Your task to perform on an android device: Turn off notifications for the Google Maps app Image 0: 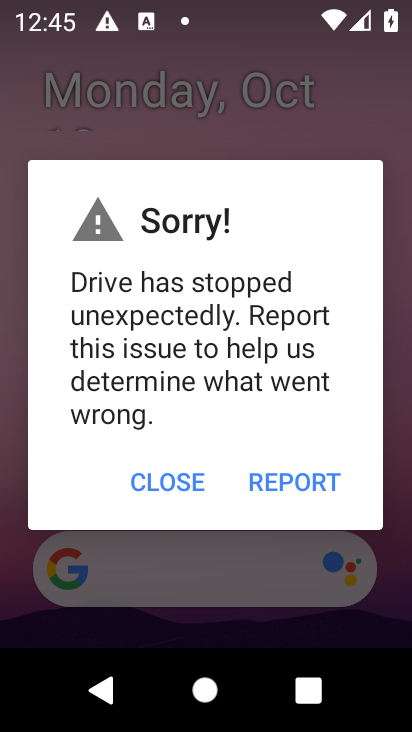
Step 0: click (177, 477)
Your task to perform on an android device: Turn off notifications for the Google Maps app Image 1: 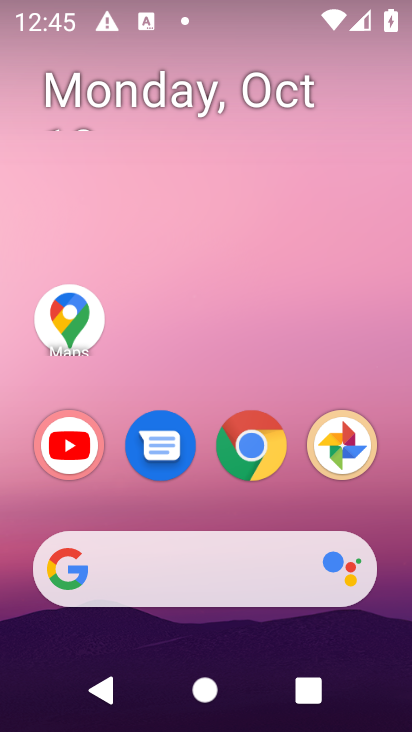
Step 1: click (59, 315)
Your task to perform on an android device: Turn off notifications for the Google Maps app Image 2: 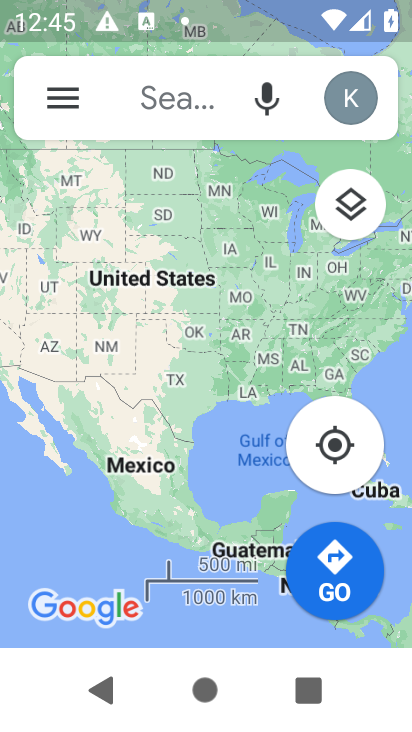
Step 2: click (51, 95)
Your task to perform on an android device: Turn off notifications for the Google Maps app Image 3: 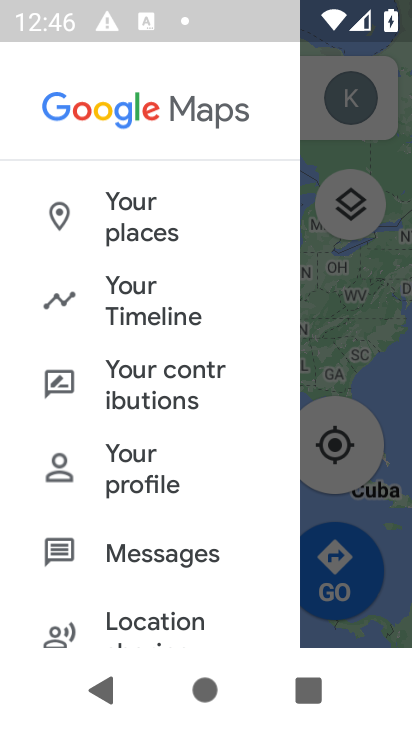
Step 3: drag from (185, 498) to (187, 244)
Your task to perform on an android device: Turn off notifications for the Google Maps app Image 4: 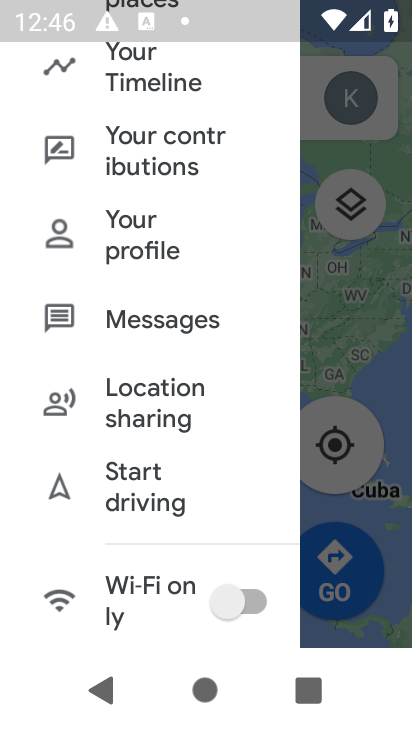
Step 4: drag from (178, 500) to (127, 164)
Your task to perform on an android device: Turn off notifications for the Google Maps app Image 5: 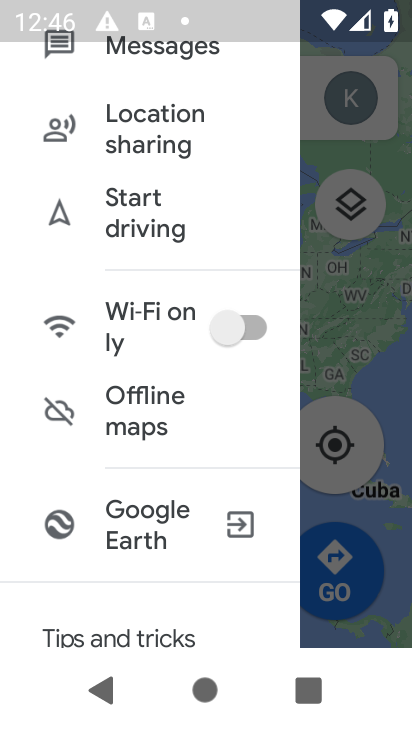
Step 5: drag from (182, 528) to (195, 117)
Your task to perform on an android device: Turn off notifications for the Google Maps app Image 6: 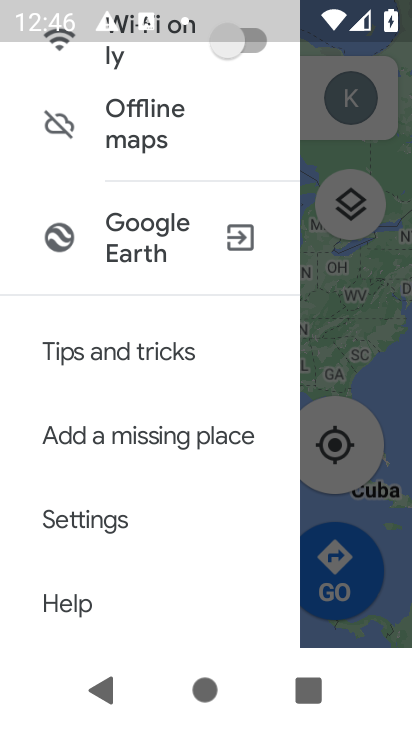
Step 6: click (87, 514)
Your task to perform on an android device: Turn off notifications for the Google Maps app Image 7: 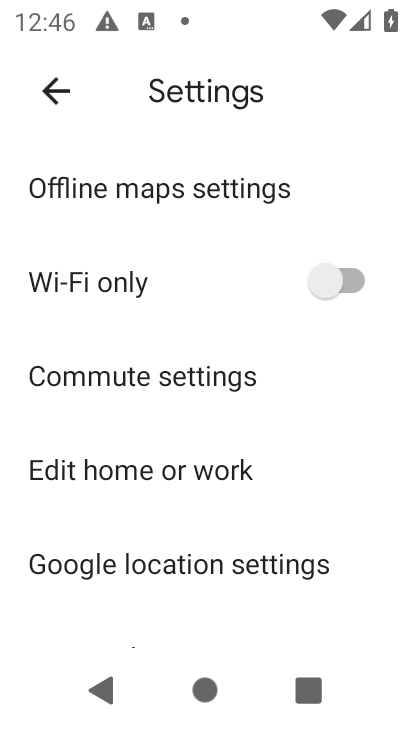
Step 7: drag from (128, 572) to (134, 248)
Your task to perform on an android device: Turn off notifications for the Google Maps app Image 8: 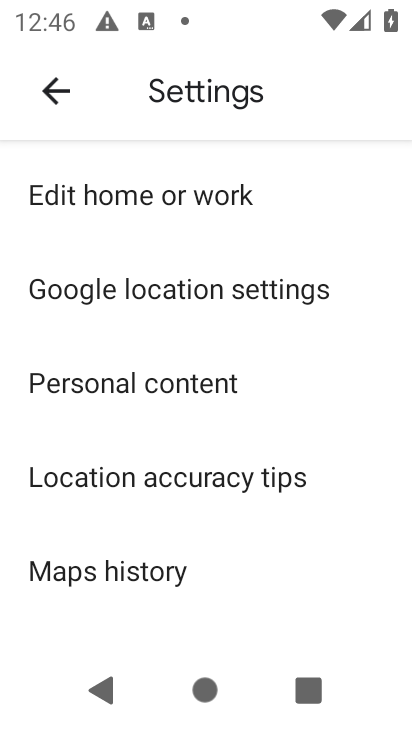
Step 8: drag from (193, 535) to (172, 71)
Your task to perform on an android device: Turn off notifications for the Google Maps app Image 9: 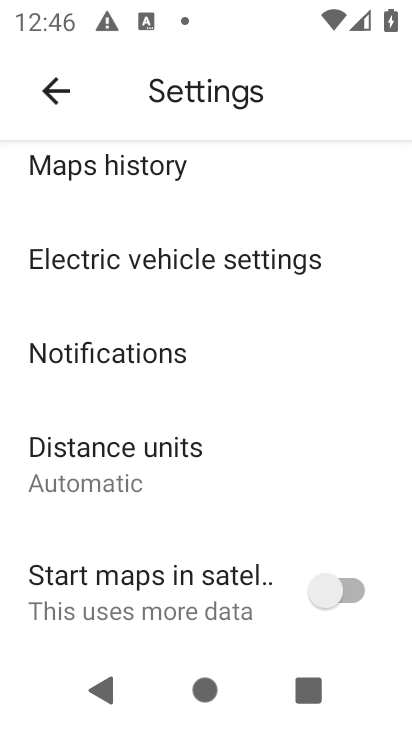
Step 9: click (137, 366)
Your task to perform on an android device: Turn off notifications for the Google Maps app Image 10: 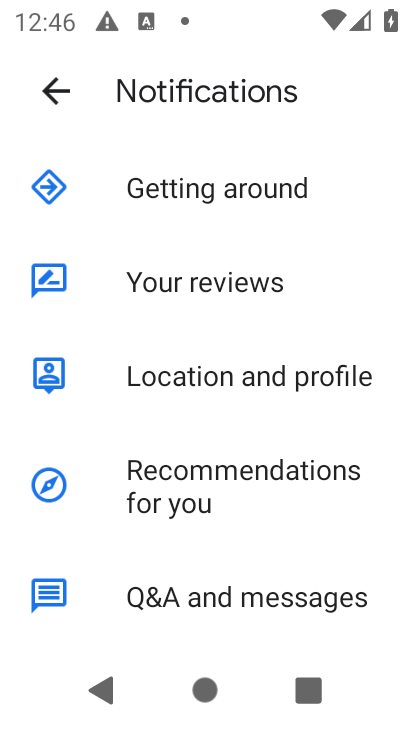
Step 10: drag from (209, 488) to (242, 19)
Your task to perform on an android device: Turn off notifications for the Google Maps app Image 11: 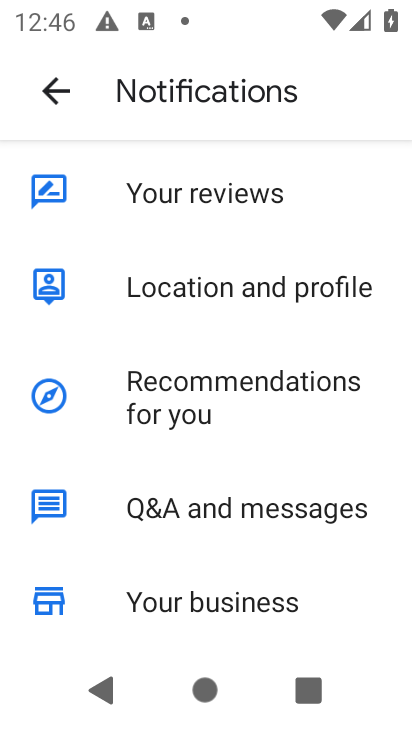
Step 11: drag from (195, 587) to (183, 334)
Your task to perform on an android device: Turn off notifications for the Google Maps app Image 12: 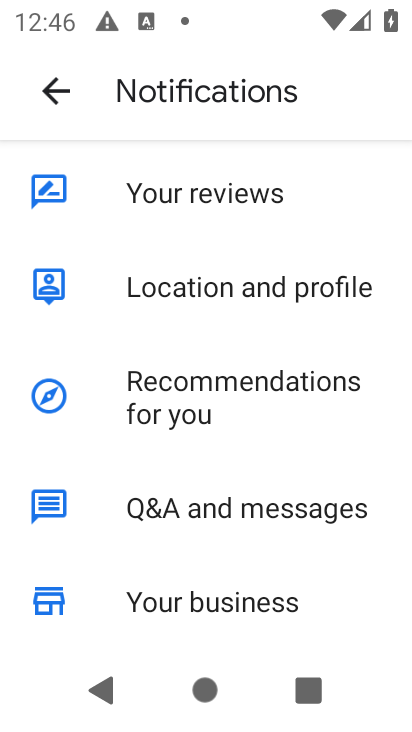
Step 12: drag from (248, 178) to (216, 513)
Your task to perform on an android device: Turn off notifications for the Google Maps app Image 13: 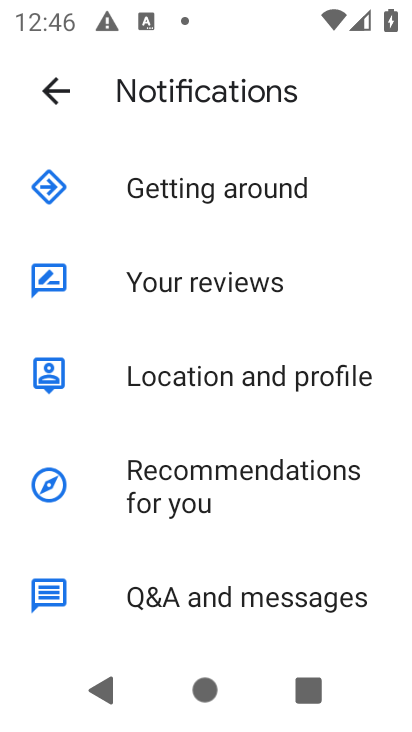
Step 13: click (207, 197)
Your task to perform on an android device: Turn off notifications for the Google Maps app Image 14: 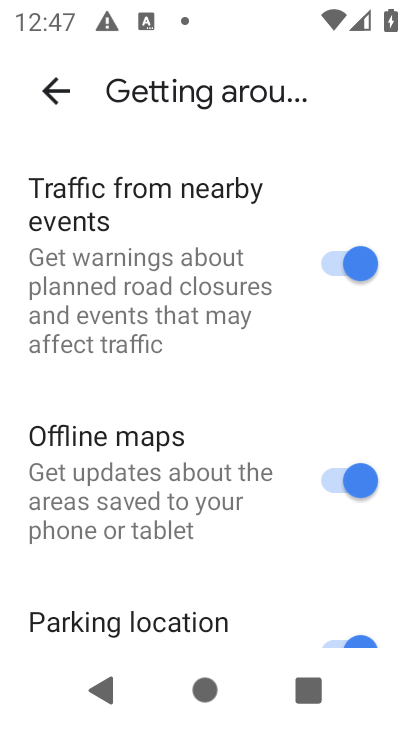
Step 14: drag from (235, 383) to (210, 63)
Your task to perform on an android device: Turn off notifications for the Google Maps app Image 15: 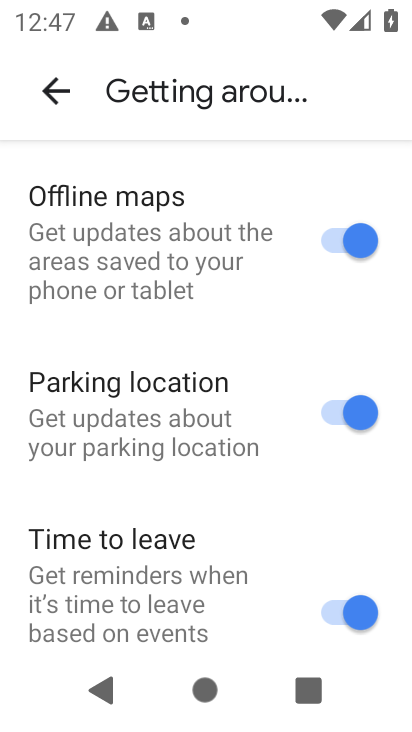
Step 15: drag from (191, 557) to (179, 96)
Your task to perform on an android device: Turn off notifications for the Google Maps app Image 16: 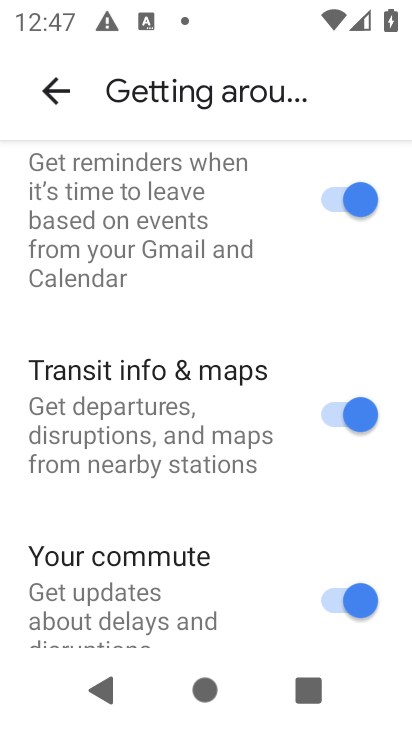
Step 16: drag from (213, 585) to (191, 113)
Your task to perform on an android device: Turn off notifications for the Google Maps app Image 17: 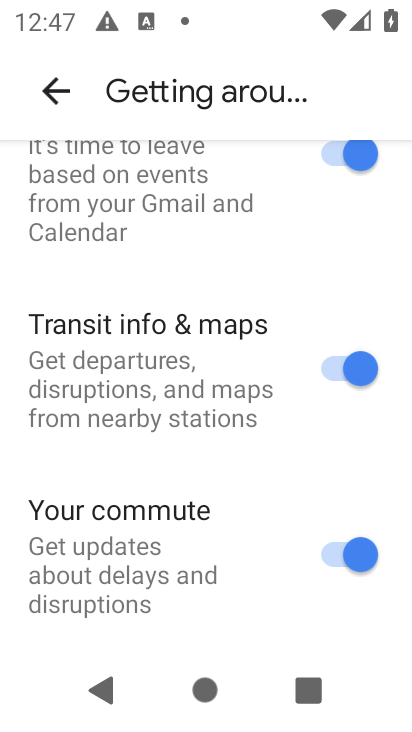
Step 17: click (347, 167)
Your task to perform on an android device: Turn off notifications for the Google Maps app Image 18: 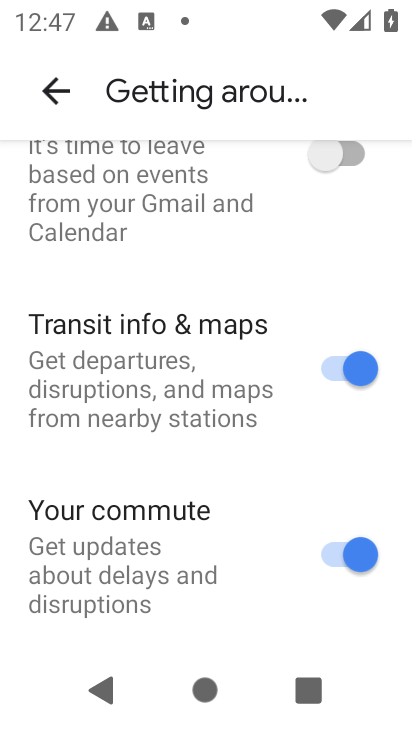
Step 18: click (343, 374)
Your task to perform on an android device: Turn off notifications for the Google Maps app Image 19: 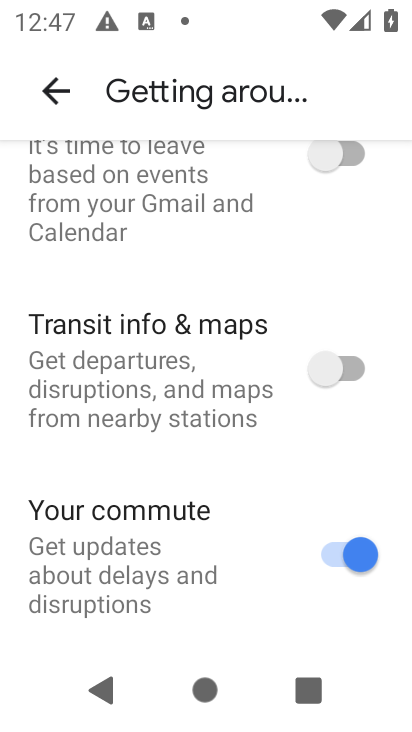
Step 19: click (337, 569)
Your task to perform on an android device: Turn off notifications for the Google Maps app Image 20: 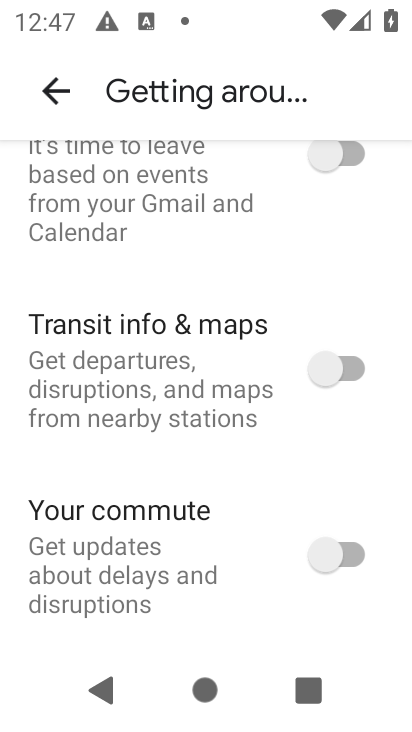
Step 20: drag from (203, 178) to (174, 581)
Your task to perform on an android device: Turn off notifications for the Google Maps app Image 21: 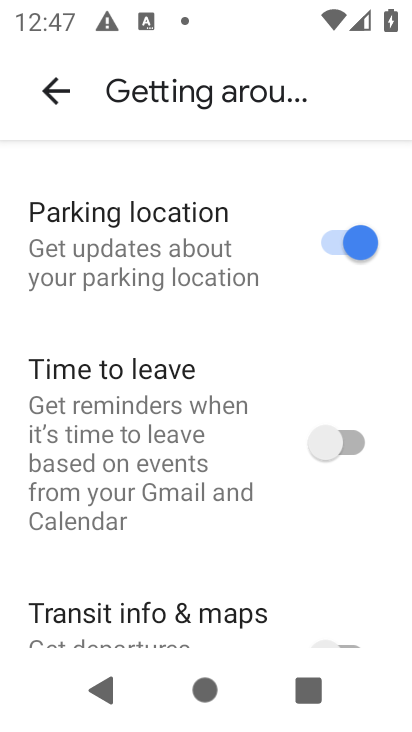
Step 21: click (333, 241)
Your task to perform on an android device: Turn off notifications for the Google Maps app Image 22: 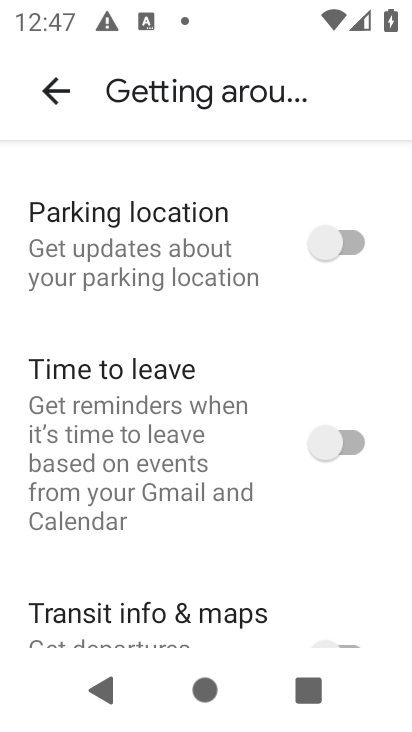
Step 22: drag from (218, 221) to (158, 671)
Your task to perform on an android device: Turn off notifications for the Google Maps app Image 23: 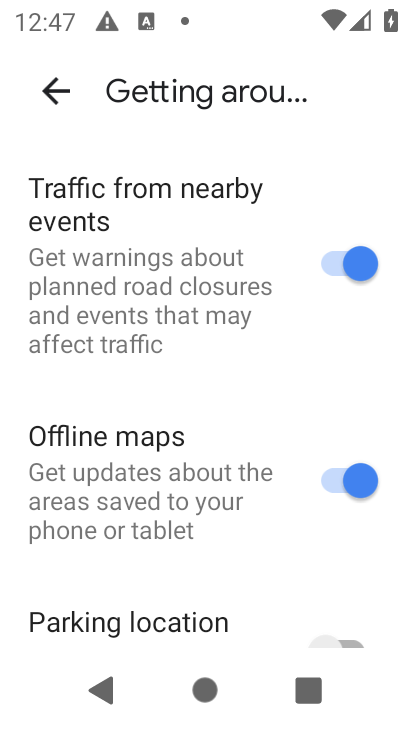
Step 23: click (332, 486)
Your task to perform on an android device: Turn off notifications for the Google Maps app Image 24: 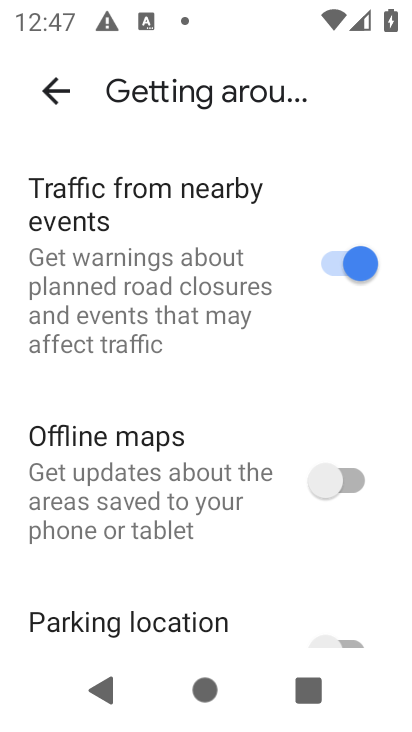
Step 24: click (330, 263)
Your task to perform on an android device: Turn off notifications for the Google Maps app Image 25: 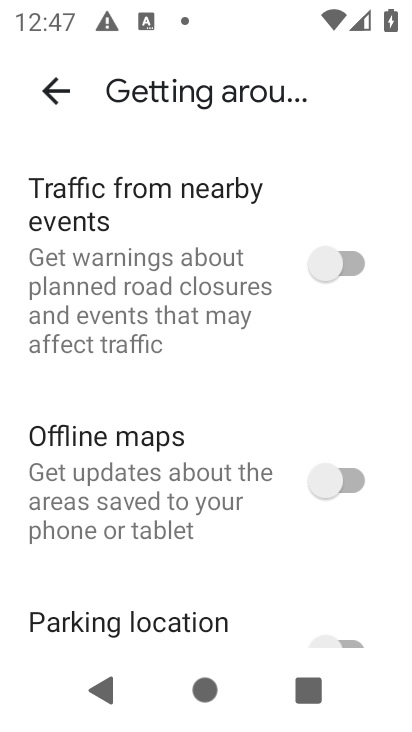
Step 25: task complete